Your task to perform on an android device: turn on showing notifications on the lock screen Image 0: 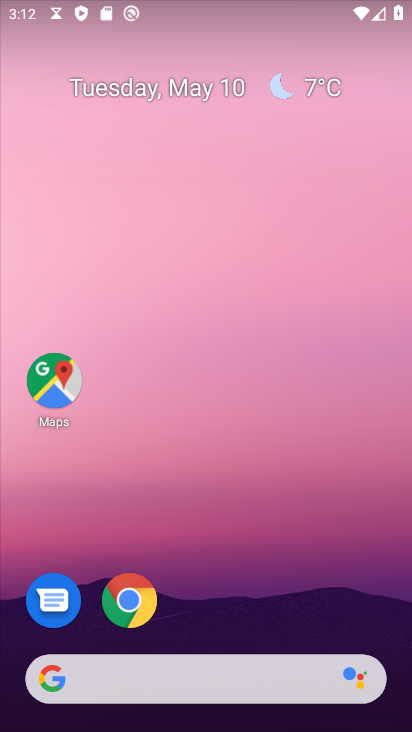
Step 0: drag from (206, 517) to (308, 73)
Your task to perform on an android device: turn on showing notifications on the lock screen Image 1: 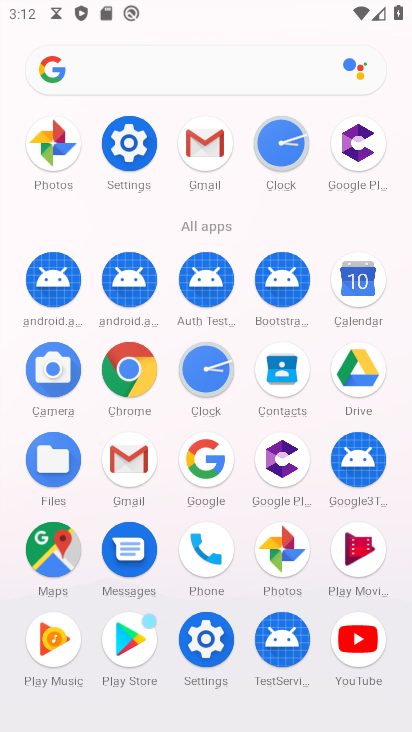
Step 1: drag from (297, 7) to (207, 711)
Your task to perform on an android device: turn on showing notifications on the lock screen Image 2: 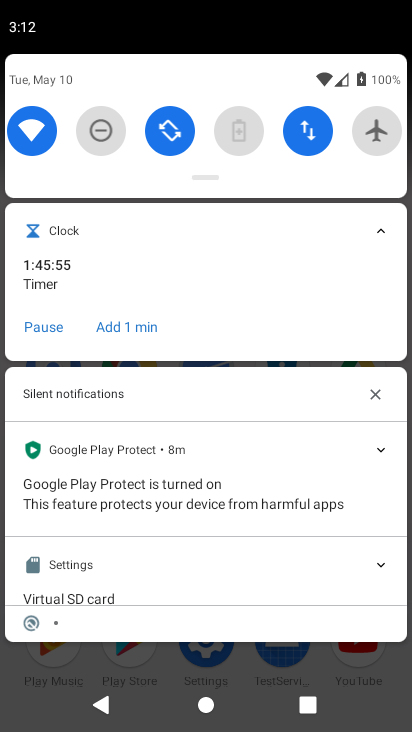
Step 2: drag from (224, 629) to (329, 72)
Your task to perform on an android device: turn on showing notifications on the lock screen Image 3: 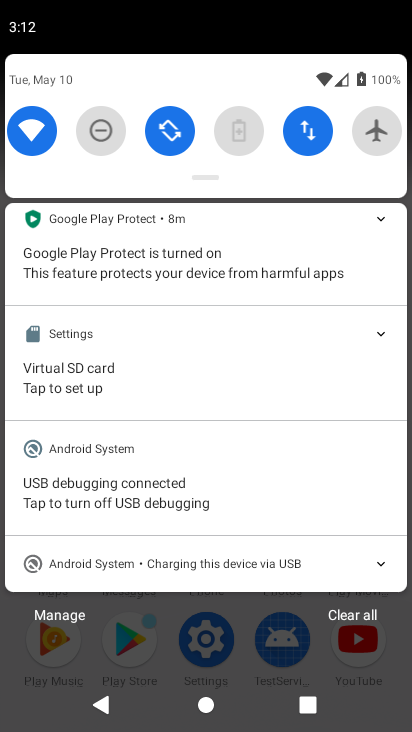
Step 3: drag from (168, 653) to (324, 0)
Your task to perform on an android device: turn on showing notifications on the lock screen Image 4: 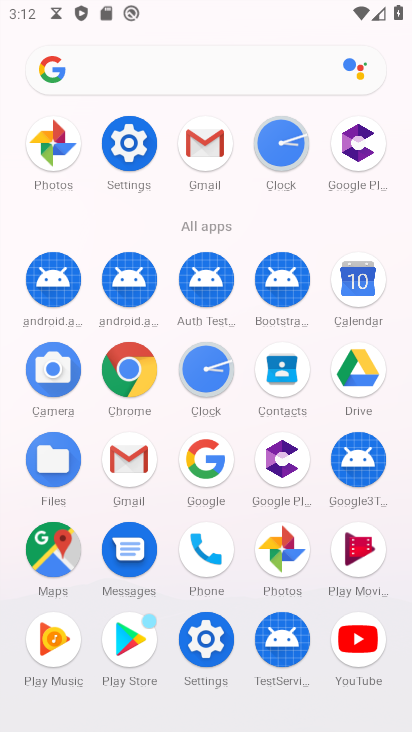
Step 4: click (140, 154)
Your task to perform on an android device: turn on showing notifications on the lock screen Image 5: 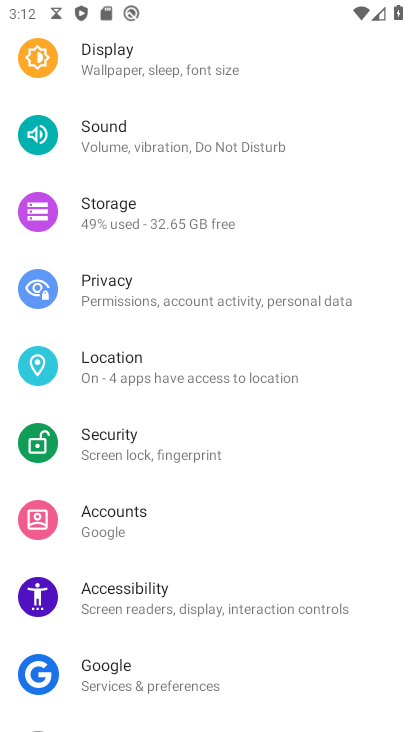
Step 5: drag from (136, 333) to (125, 539)
Your task to perform on an android device: turn on showing notifications on the lock screen Image 6: 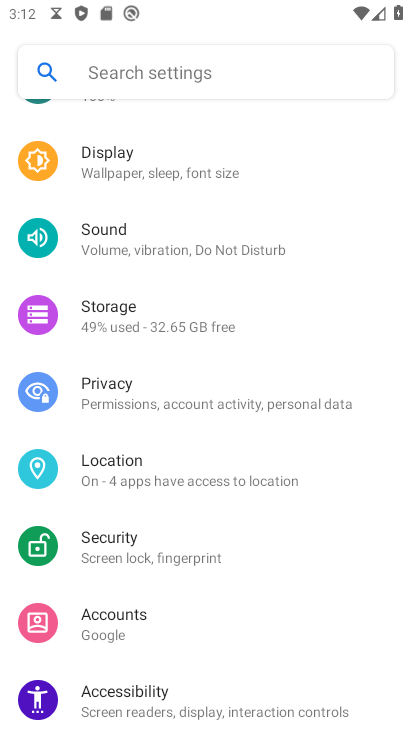
Step 6: click (181, 166)
Your task to perform on an android device: turn on showing notifications on the lock screen Image 7: 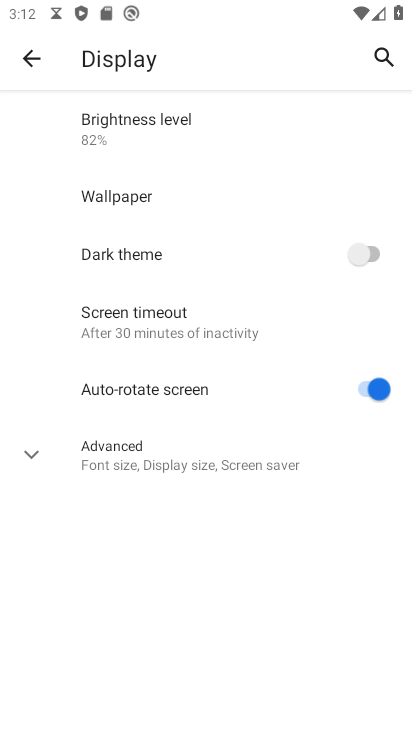
Step 7: click (12, 53)
Your task to perform on an android device: turn on showing notifications on the lock screen Image 8: 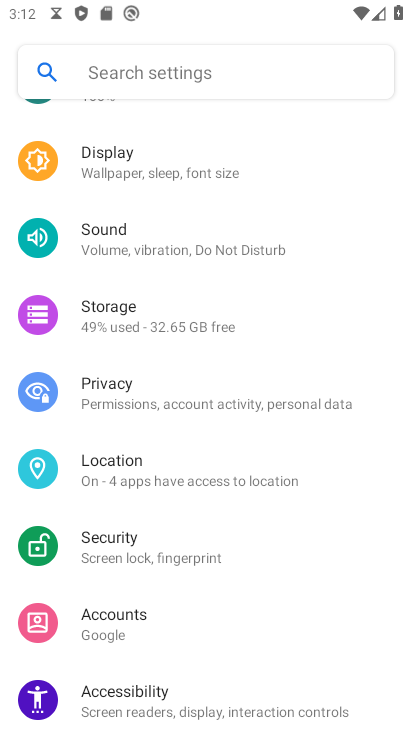
Step 8: drag from (179, 252) to (173, 604)
Your task to perform on an android device: turn on showing notifications on the lock screen Image 9: 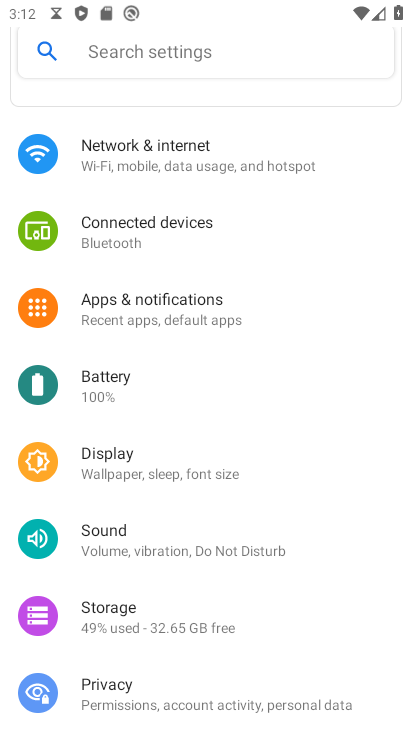
Step 9: drag from (145, 600) to (208, 204)
Your task to perform on an android device: turn on showing notifications on the lock screen Image 10: 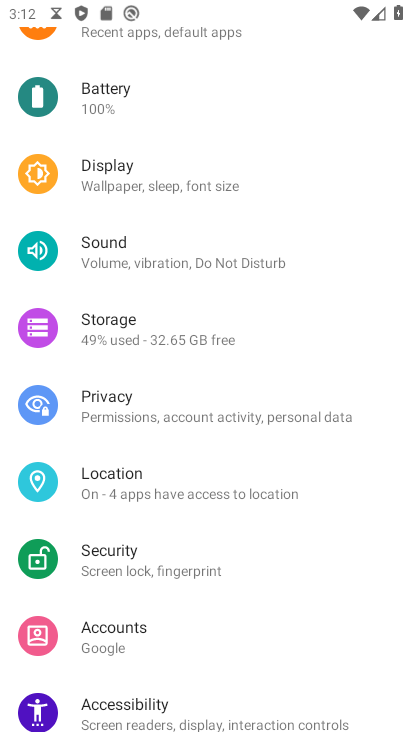
Step 10: drag from (121, 503) to (217, 179)
Your task to perform on an android device: turn on showing notifications on the lock screen Image 11: 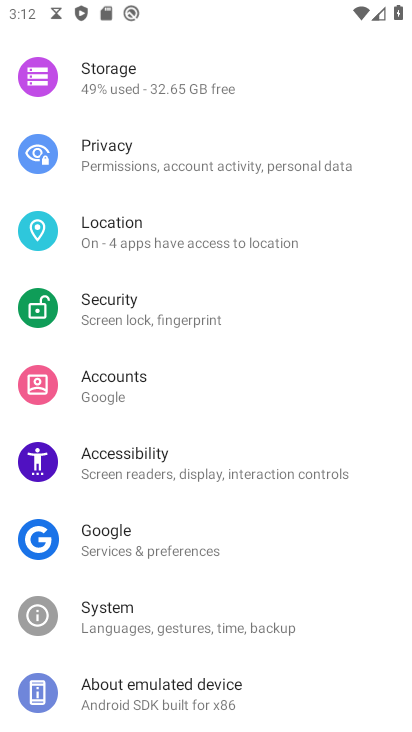
Step 11: drag from (105, 615) to (213, 53)
Your task to perform on an android device: turn on showing notifications on the lock screen Image 12: 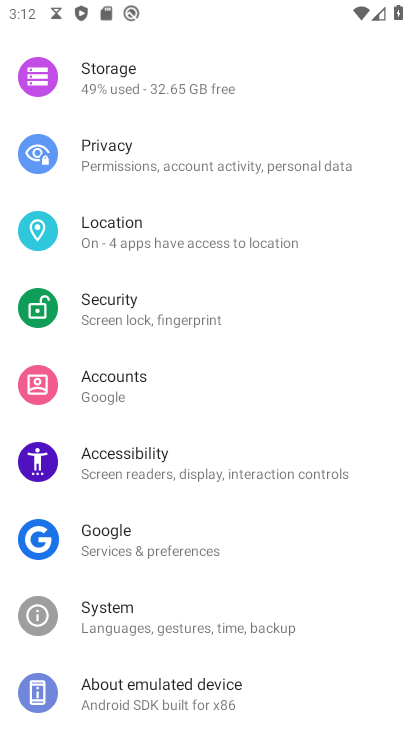
Step 12: drag from (175, 235) to (82, 646)
Your task to perform on an android device: turn on showing notifications on the lock screen Image 13: 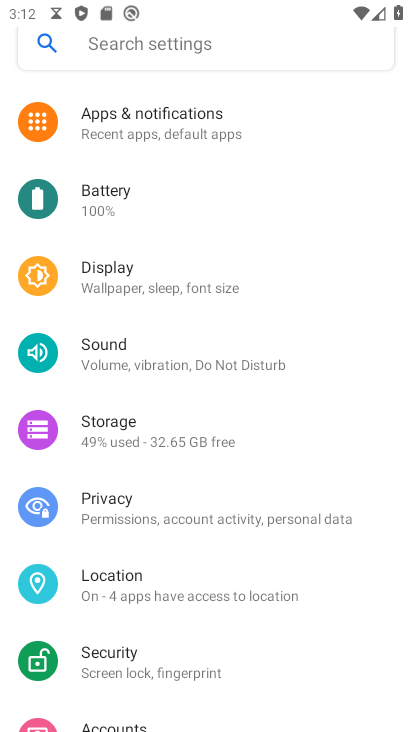
Step 13: drag from (263, 175) to (245, 533)
Your task to perform on an android device: turn on showing notifications on the lock screen Image 14: 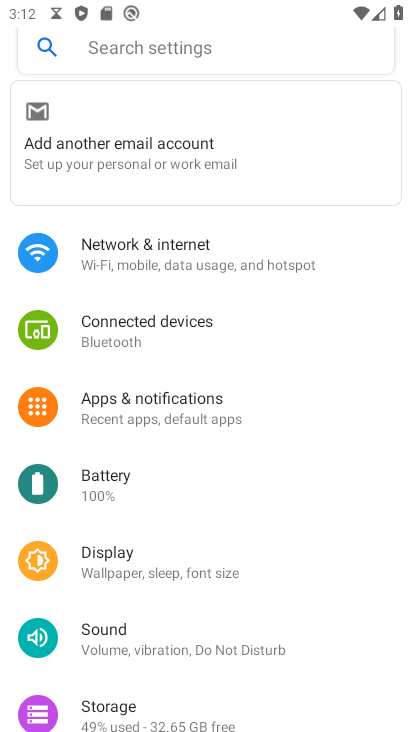
Step 14: click (217, 415)
Your task to perform on an android device: turn on showing notifications on the lock screen Image 15: 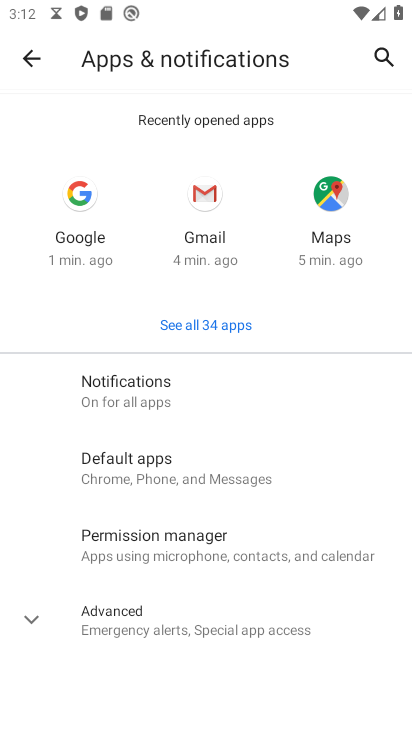
Step 15: task complete